Your task to perform on an android device: open app "Adobe Express: Graphic Design" (install if not already installed) and go to login screen Image 0: 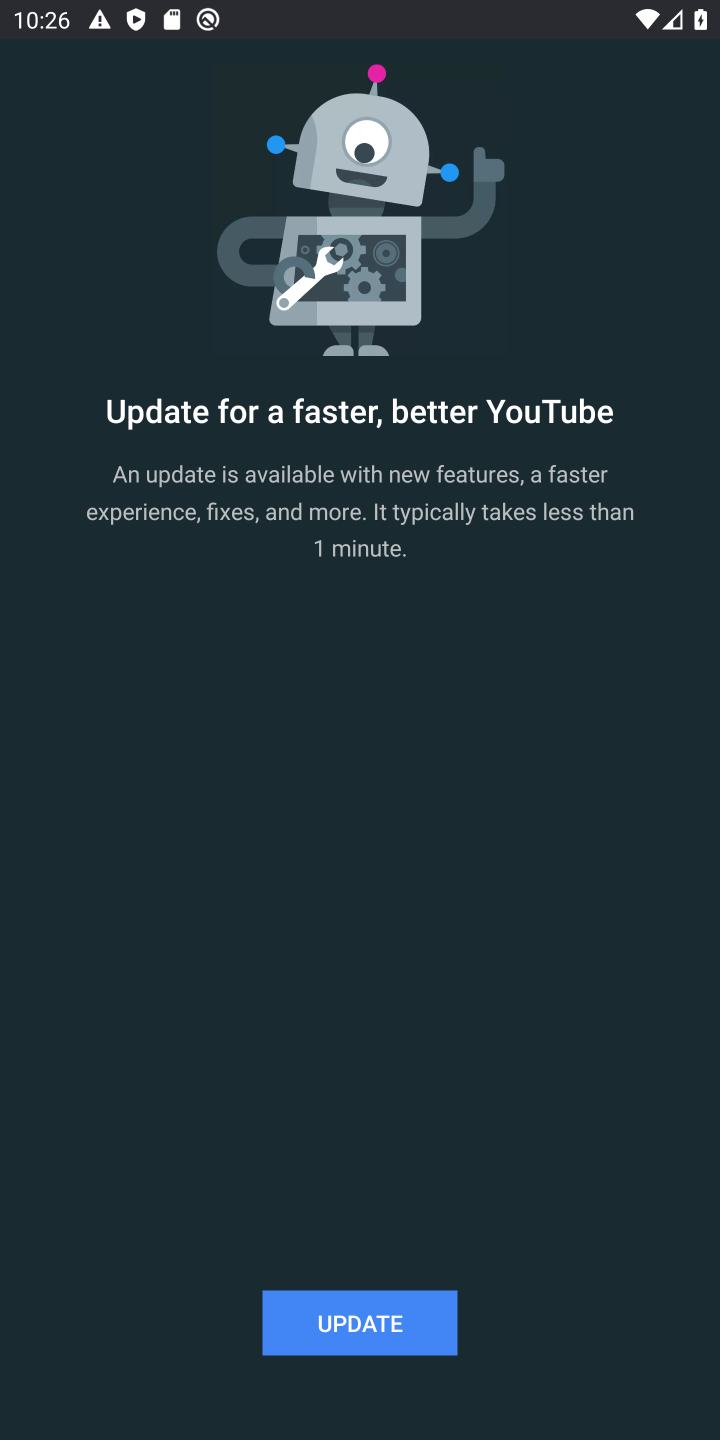
Step 0: press home button
Your task to perform on an android device: open app "Adobe Express: Graphic Design" (install if not already installed) and go to login screen Image 1: 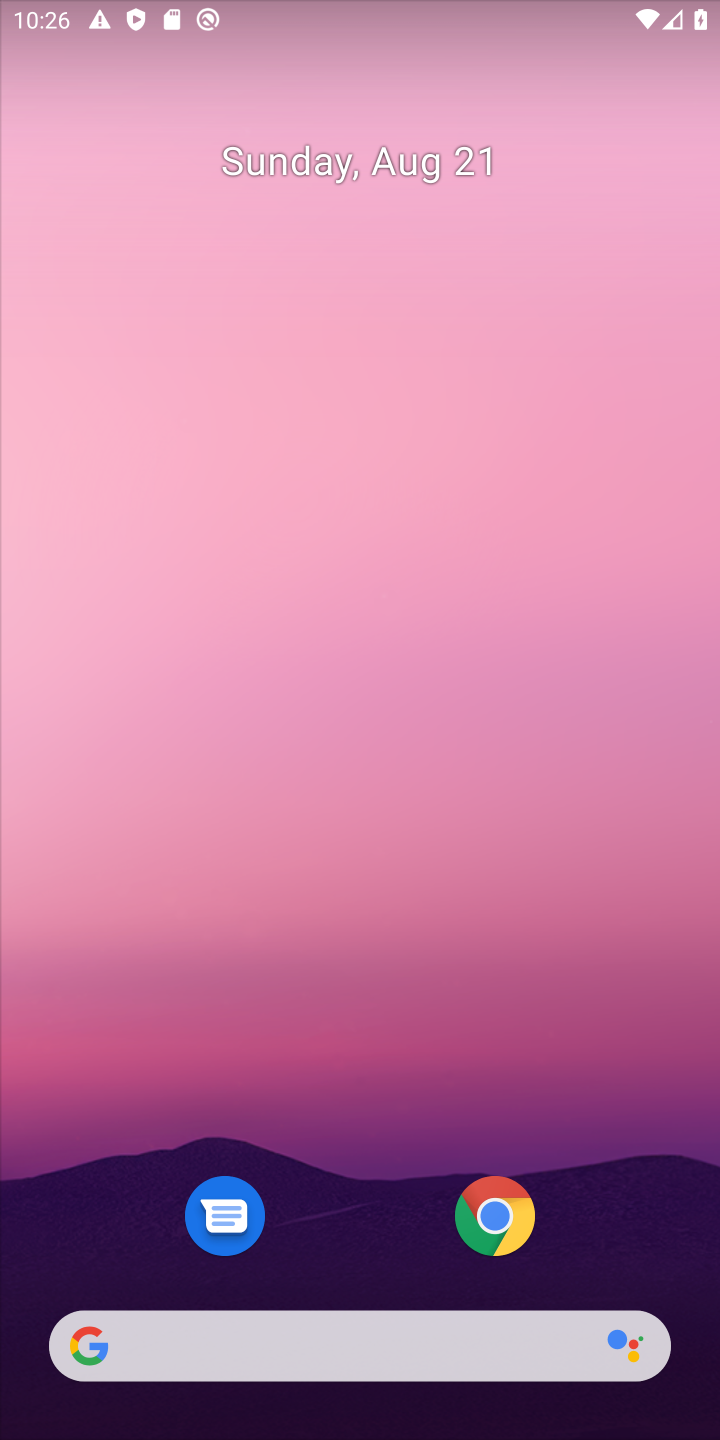
Step 1: drag from (406, 1151) to (705, 449)
Your task to perform on an android device: open app "Adobe Express: Graphic Design" (install if not already installed) and go to login screen Image 2: 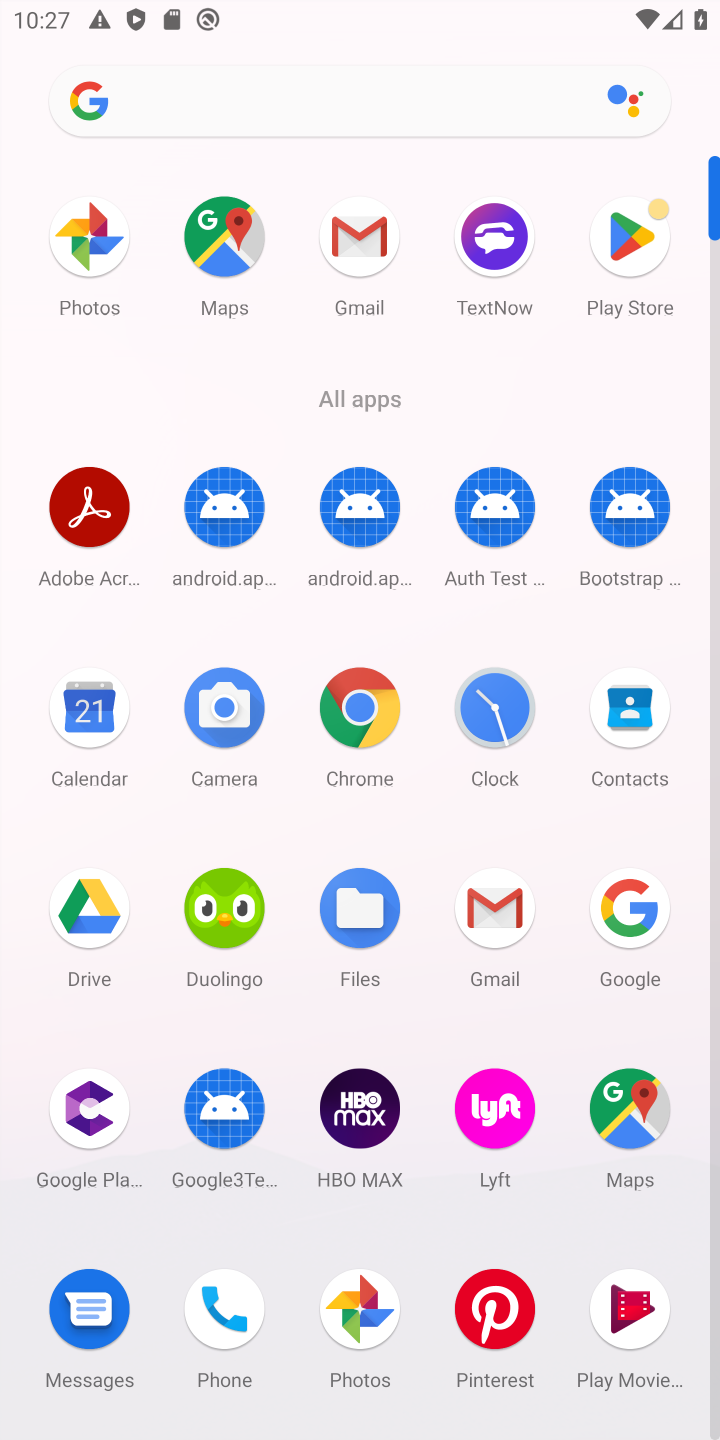
Step 2: click (614, 240)
Your task to perform on an android device: open app "Adobe Express: Graphic Design" (install if not already installed) and go to login screen Image 3: 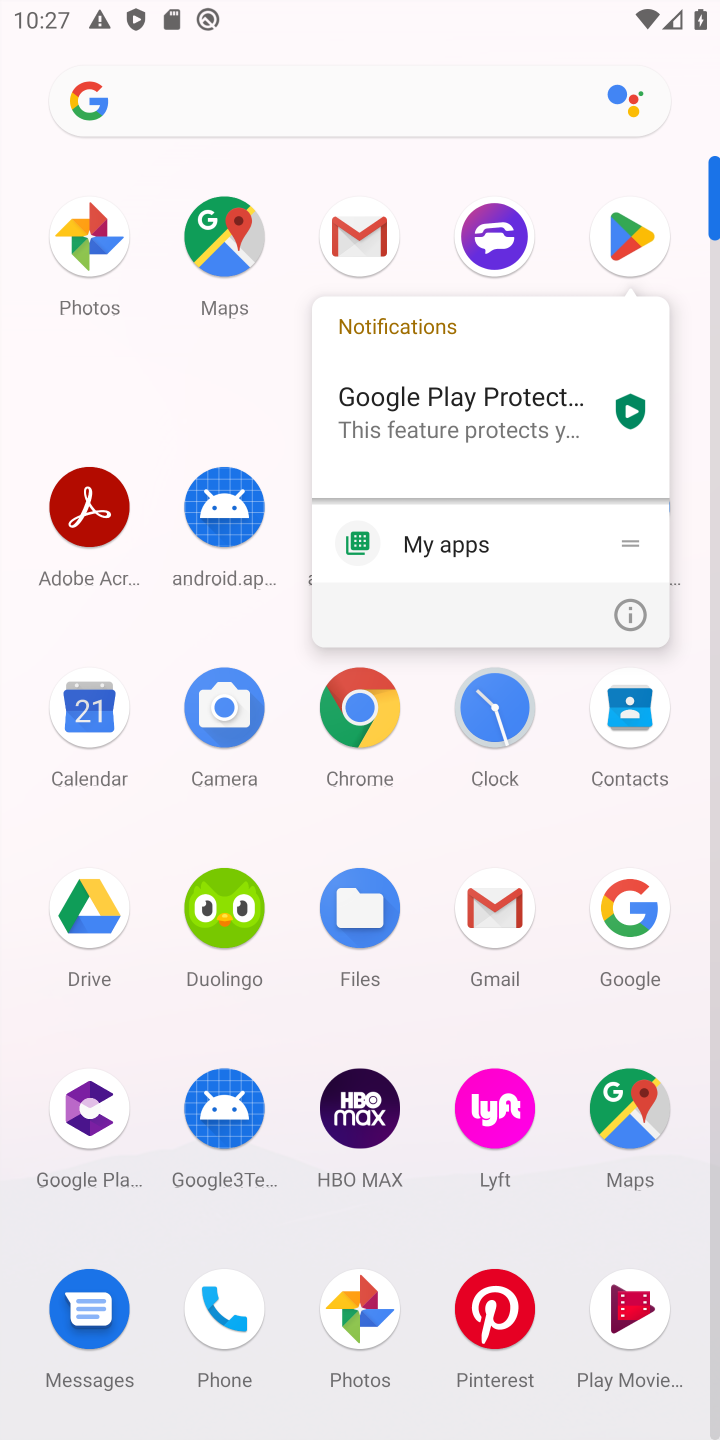
Step 3: click (614, 240)
Your task to perform on an android device: open app "Adobe Express: Graphic Design" (install if not already installed) and go to login screen Image 4: 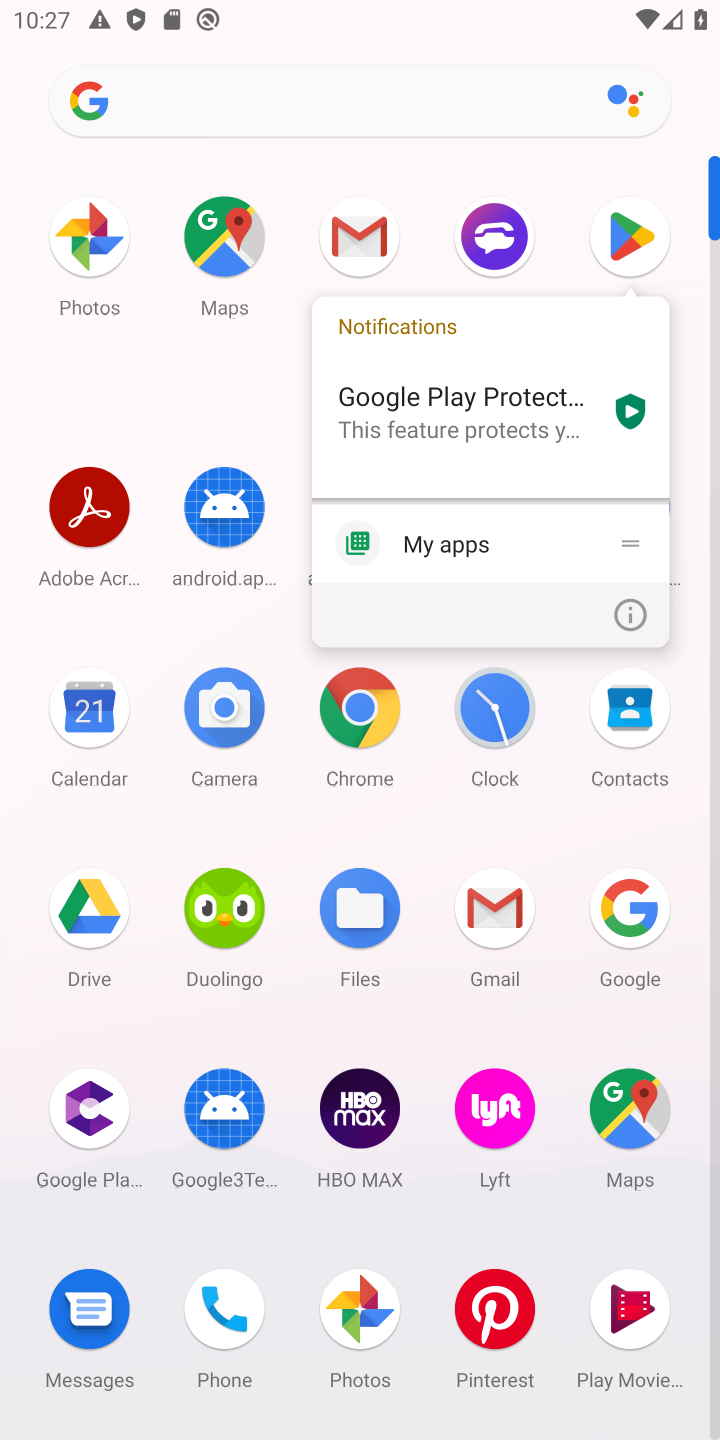
Step 4: click (624, 258)
Your task to perform on an android device: open app "Adobe Express: Graphic Design" (install if not already installed) and go to login screen Image 5: 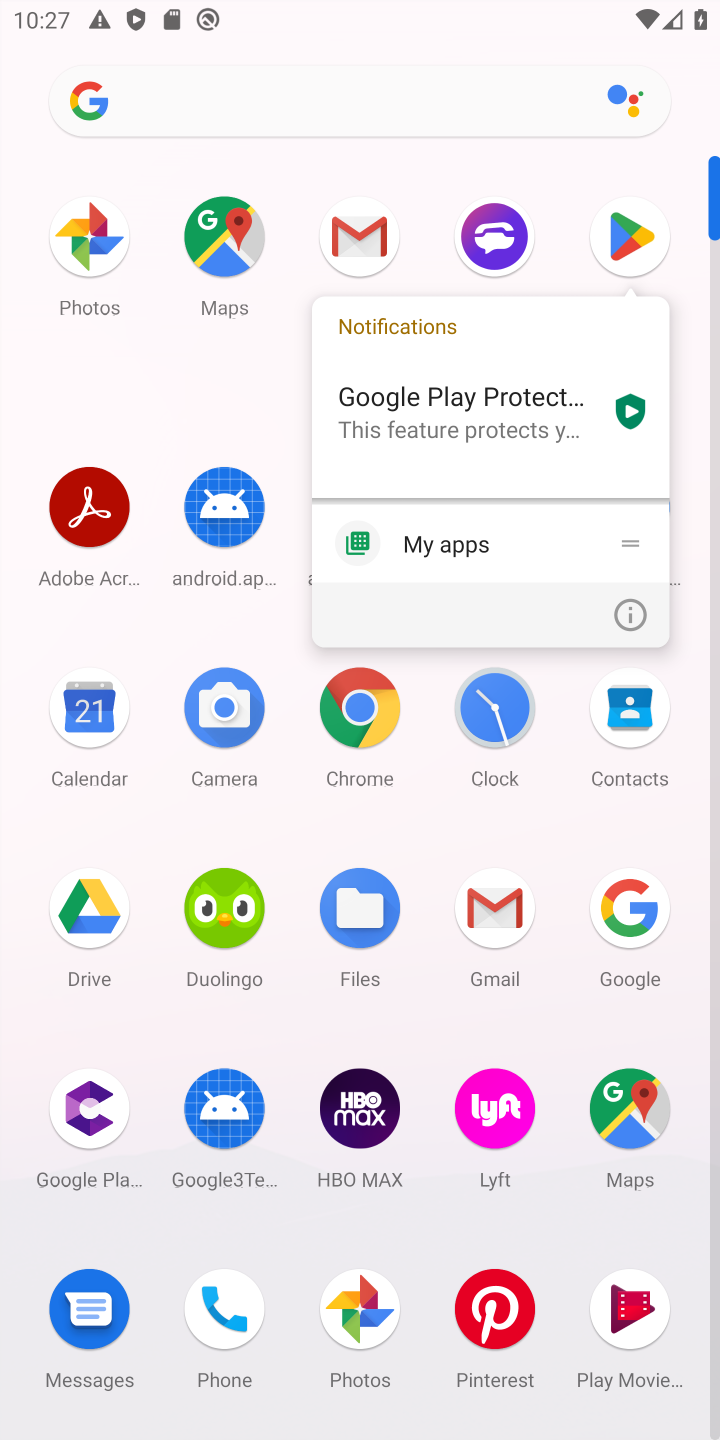
Step 5: click (625, 258)
Your task to perform on an android device: open app "Adobe Express: Graphic Design" (install if not already installed) and go to login screen Image 6: 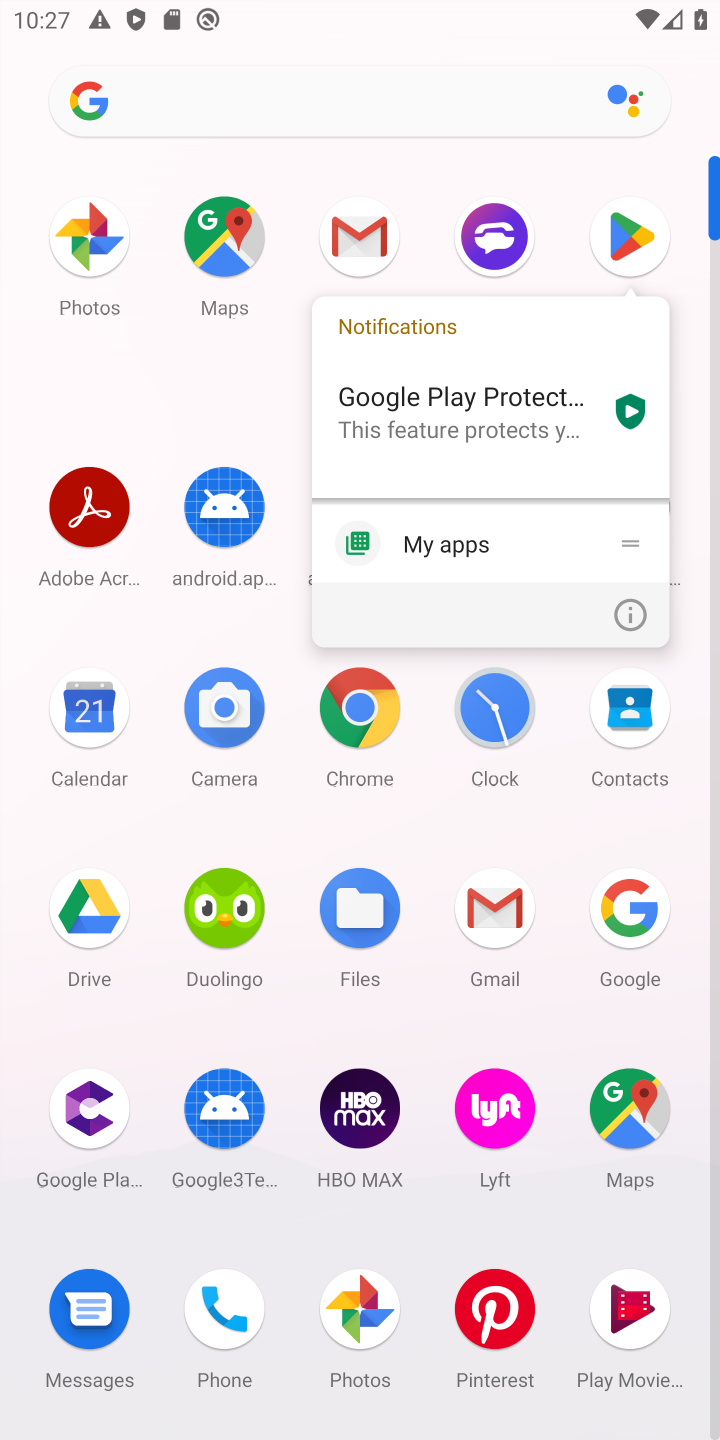
Step 6: click (617, 247)
Your task to perform on an android device: open app "Adobe Express: Graphic Design" (install if not already installed) and go to login screen Image 7: 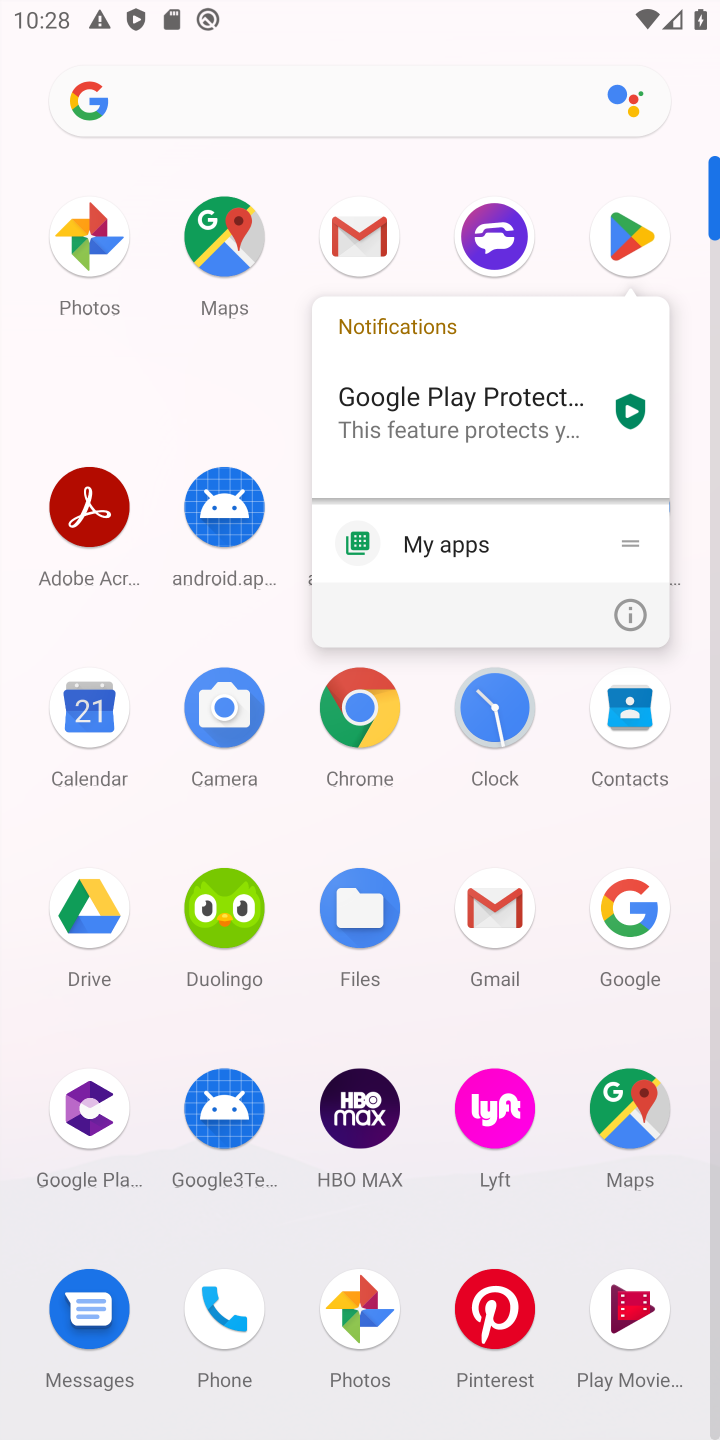
Step 7: click (615, 251)
Your task to perform on an android device: open app "Adobe Express: Graphic Design" (install if not already installed) and go to login screen Image 8: 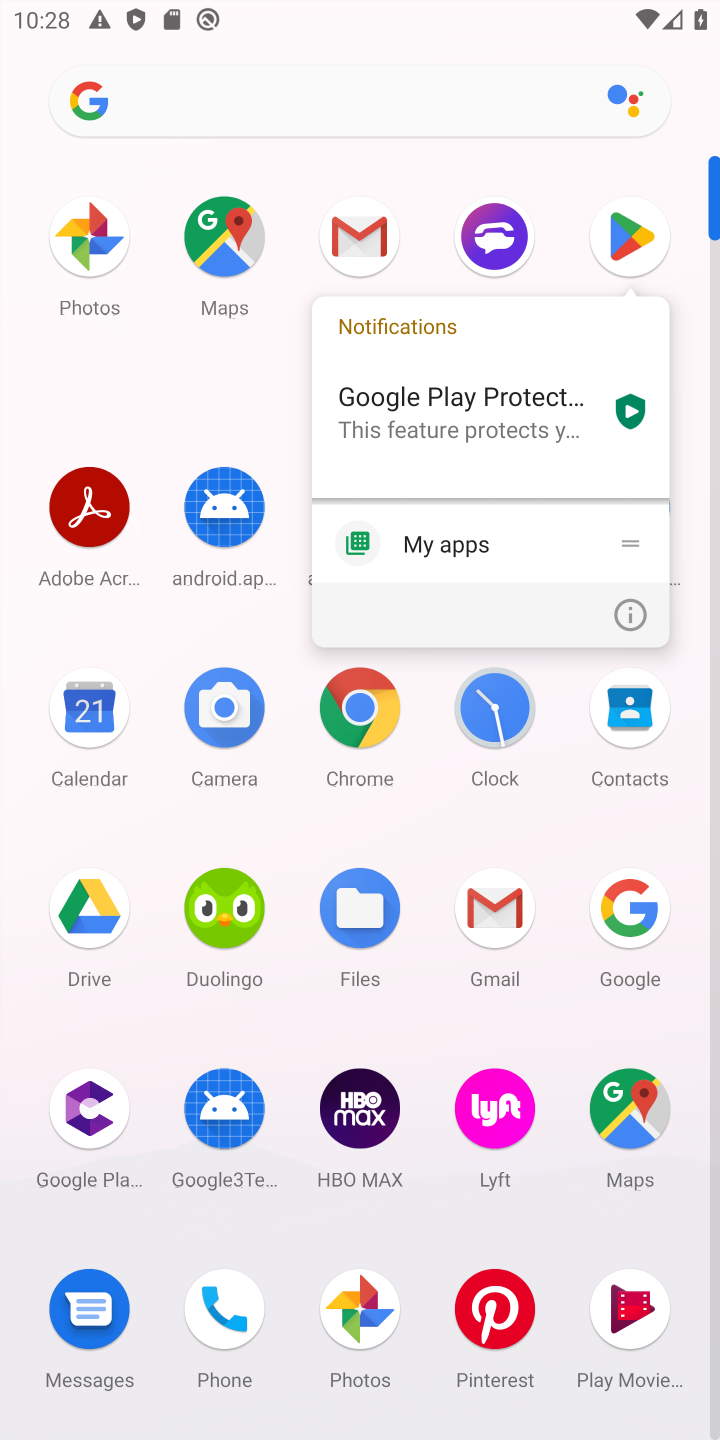
Step 8: click (617, 249)
Your task to perform on an android device: open app "Adobe Express: Graphic Design" (install if not already installed) and go to login screen Image 9: 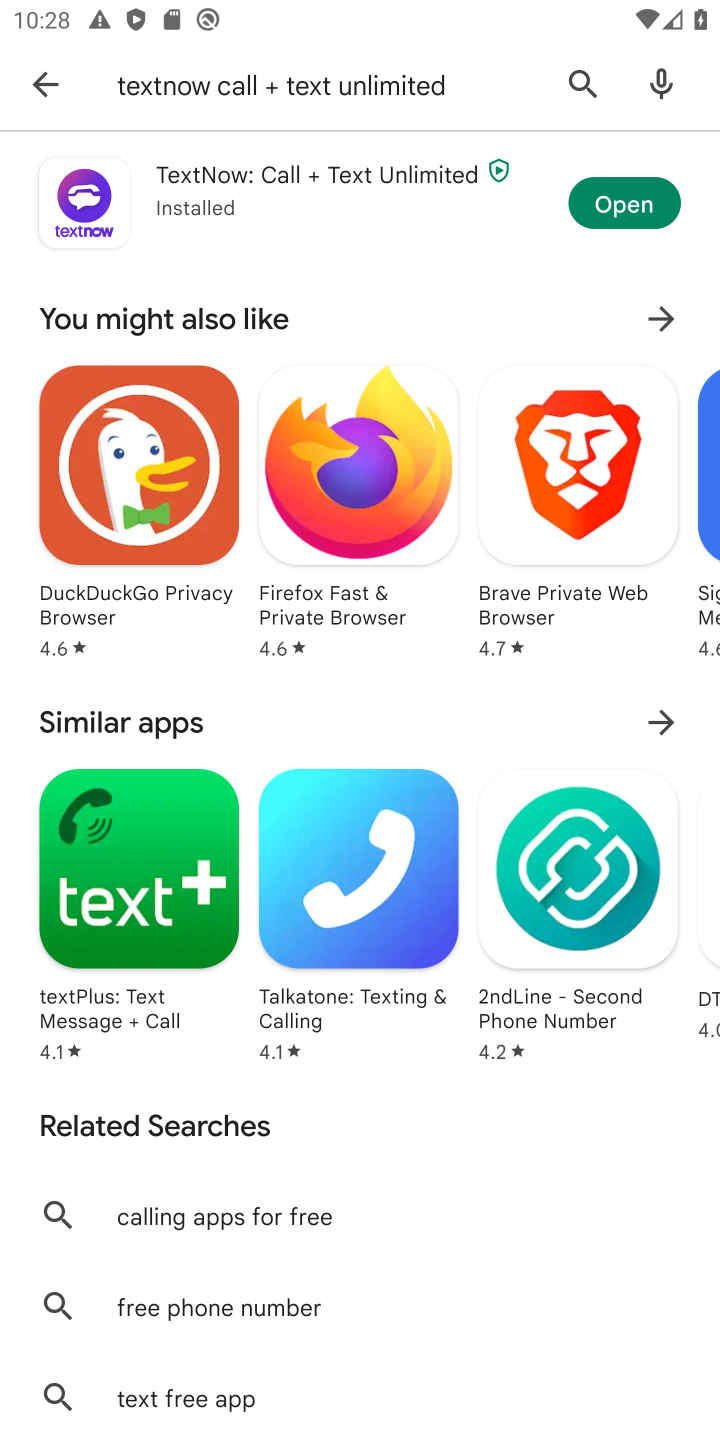
Step 9: press back button
Your task to perform on an android device: open app "Adobe Express: Graphic Design" (install if not already installed) and go to login screen Image 10: 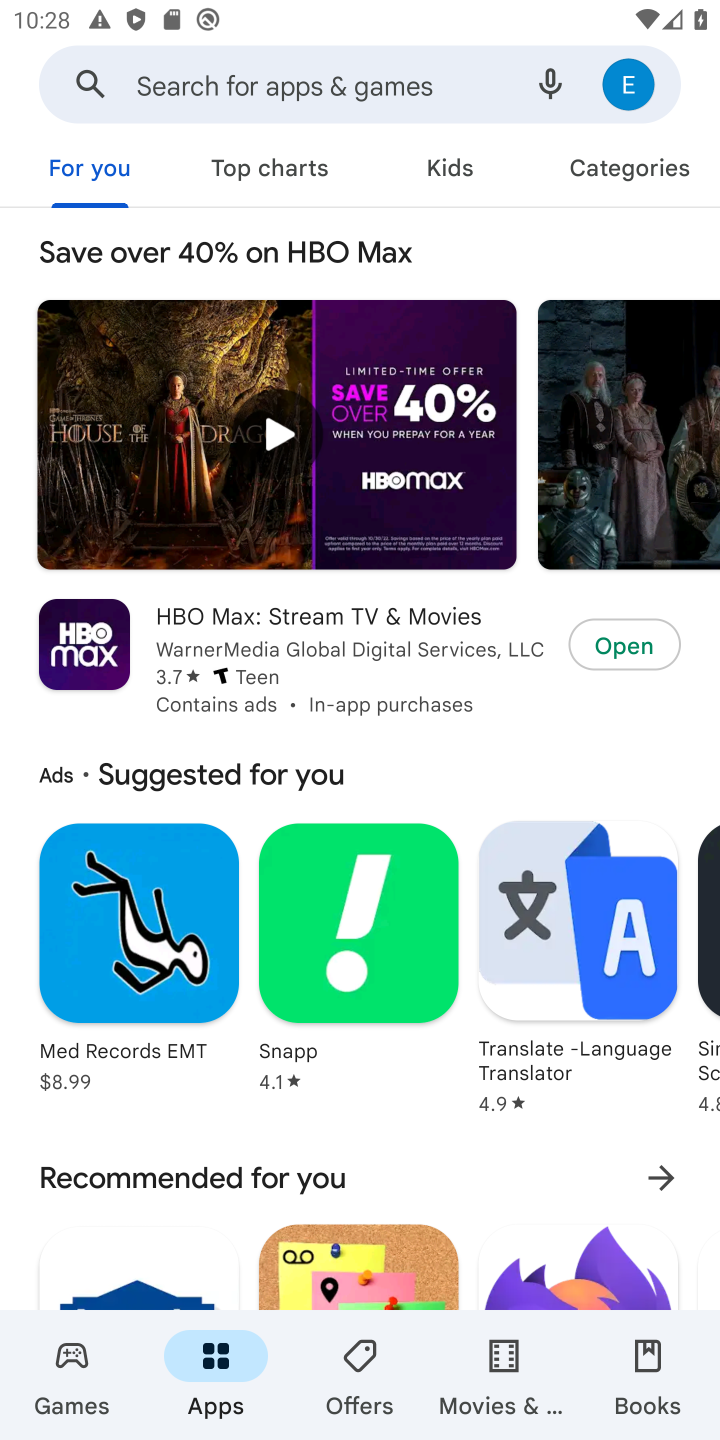
Step 10: click (220, 89)
Your task to perform on an android device: open app "Adobe Express: Graphic Design" (install if not already installed) and go to login screen Image 11: 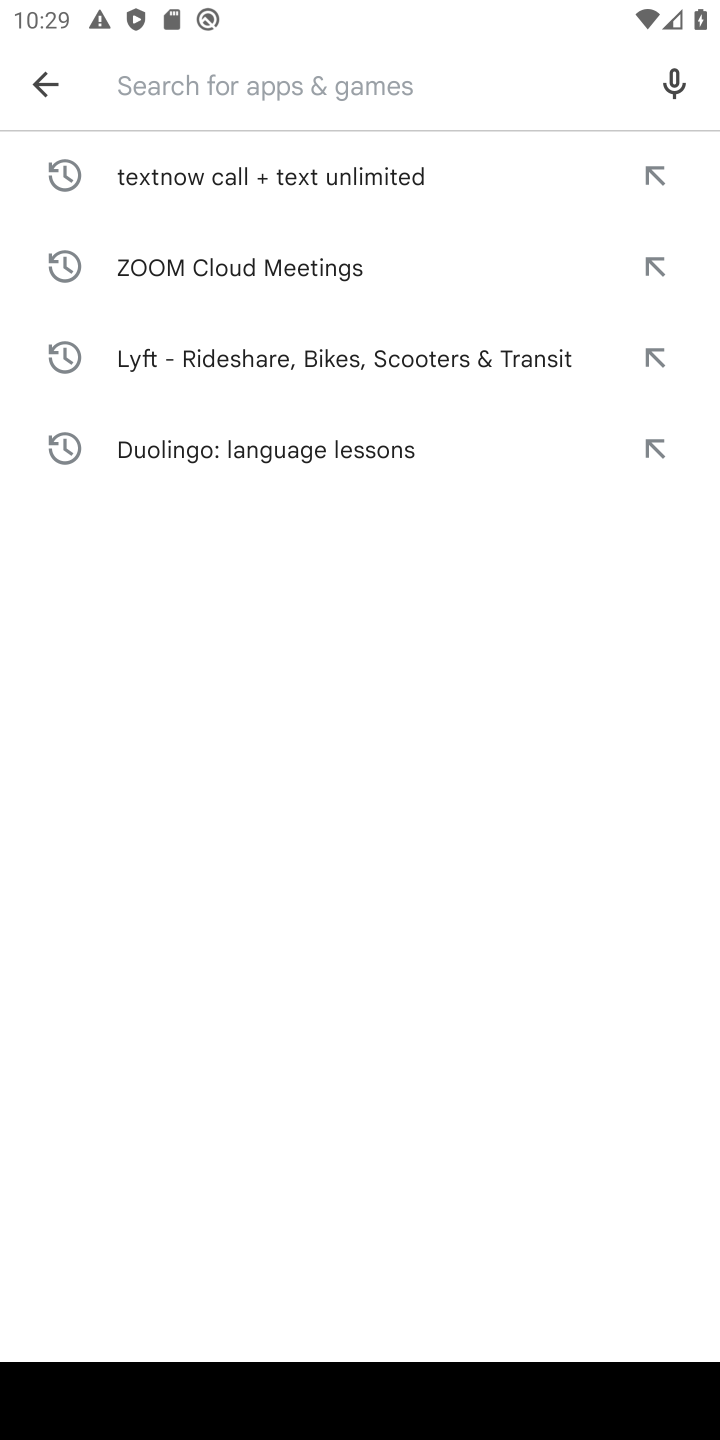
Step 11: type "Adobe Express: Graphic Design"
Your task to perform on an android device: open app "Adobe Express: Graphic Design" (install if not already installed) and go to login screen Image 12: 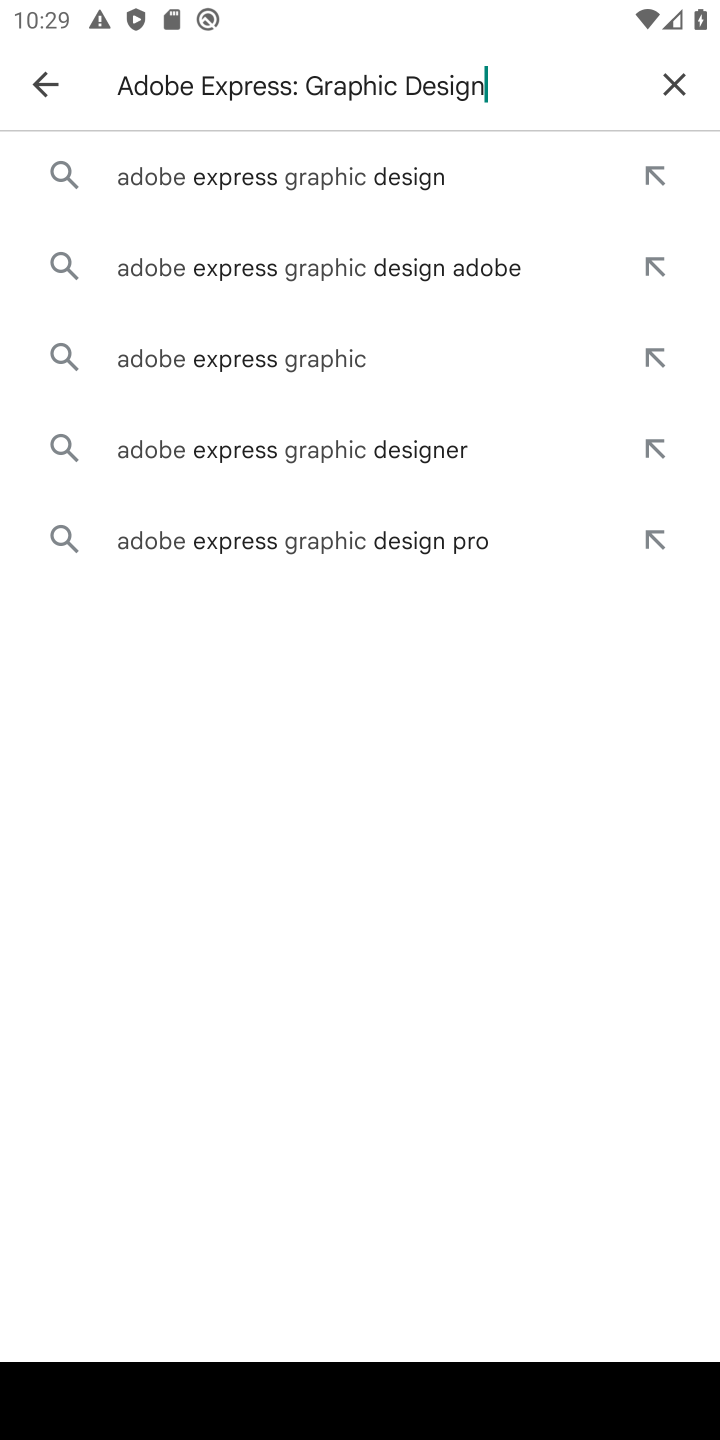
Step 12: press enter
Your task to perform on an android device: open app "Adobe Express: Graphic Design" (install if not already installed) and go to login screen Image 13: 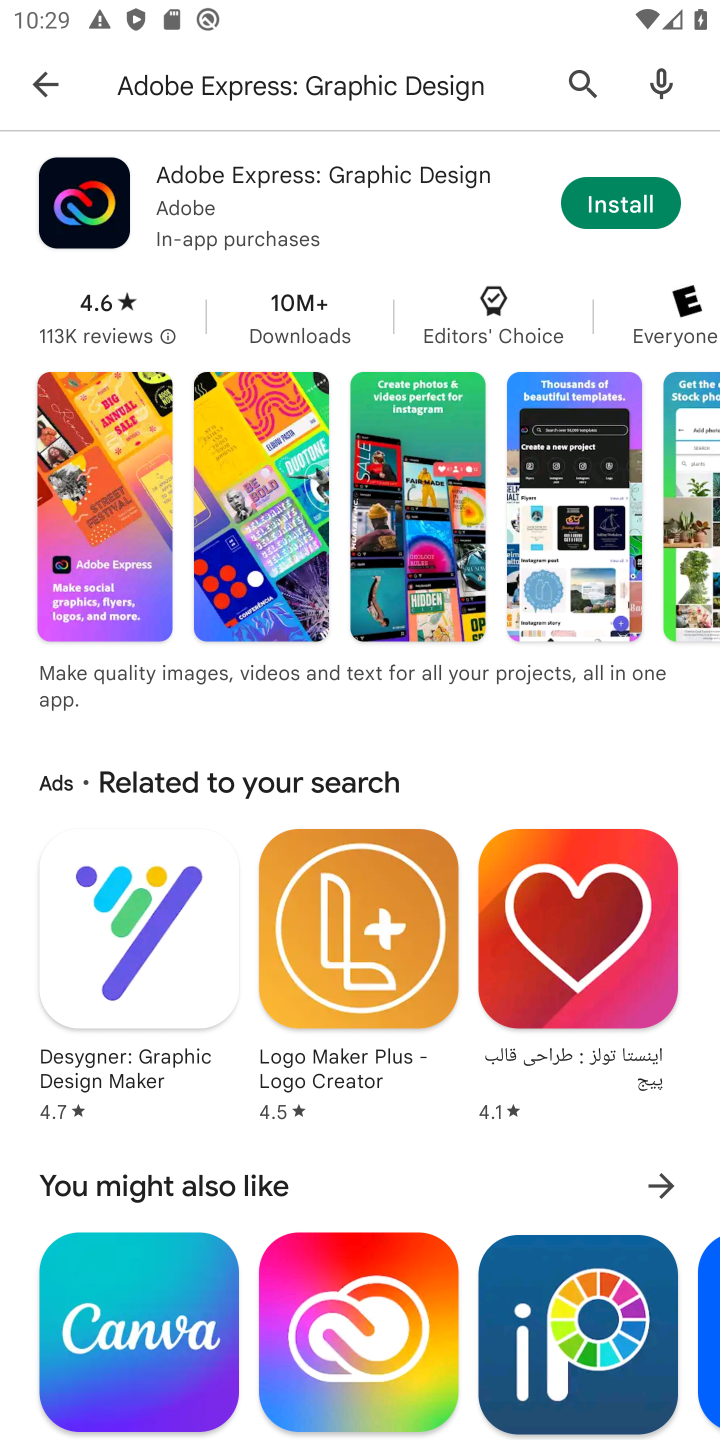
Step 13: click (614, 184)
Your task to perform on an android device: open app "Adobe Express: Graphic Design" (install if not already installed) and go to login screen Image 14: 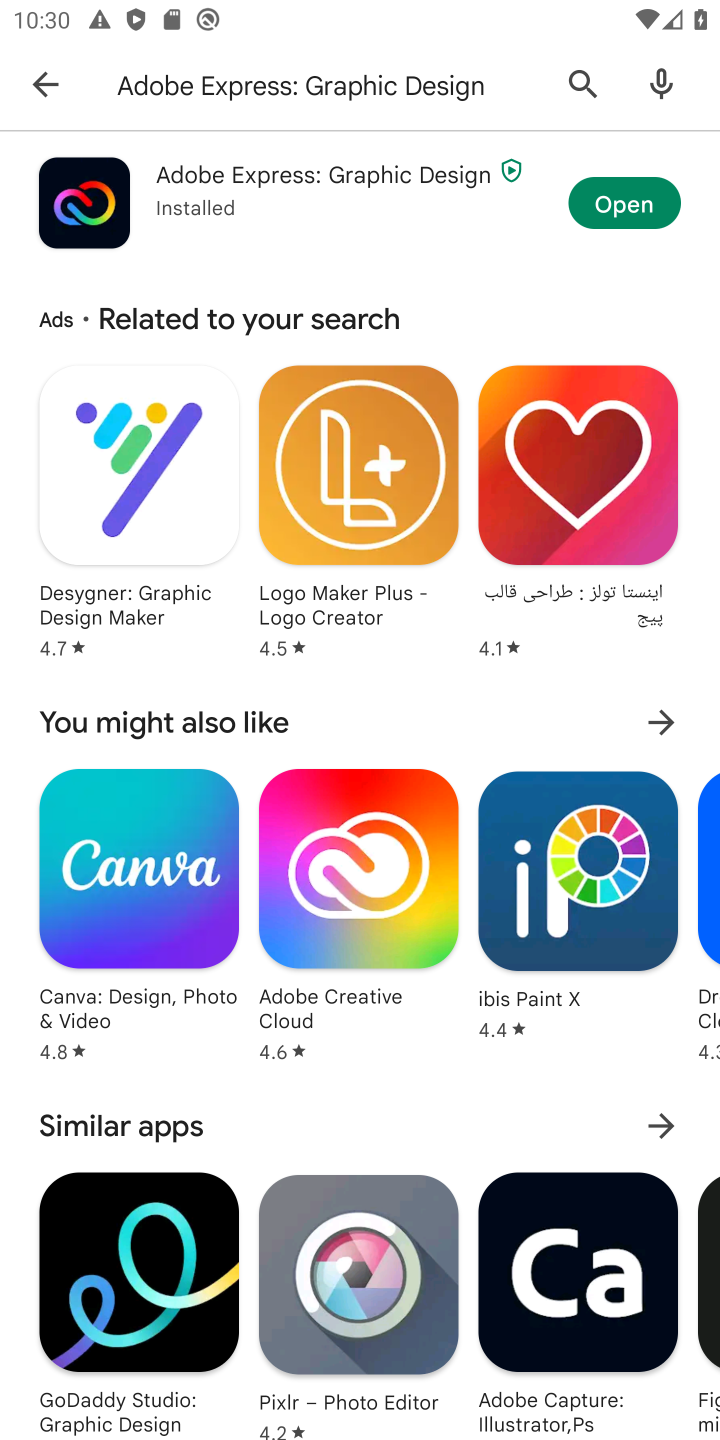
Step 14: click (636, 209)
Your task to perform on an android device: open app "Adobe Express: Graphic Design" (install if not already installed) and go to login screen Image 15: 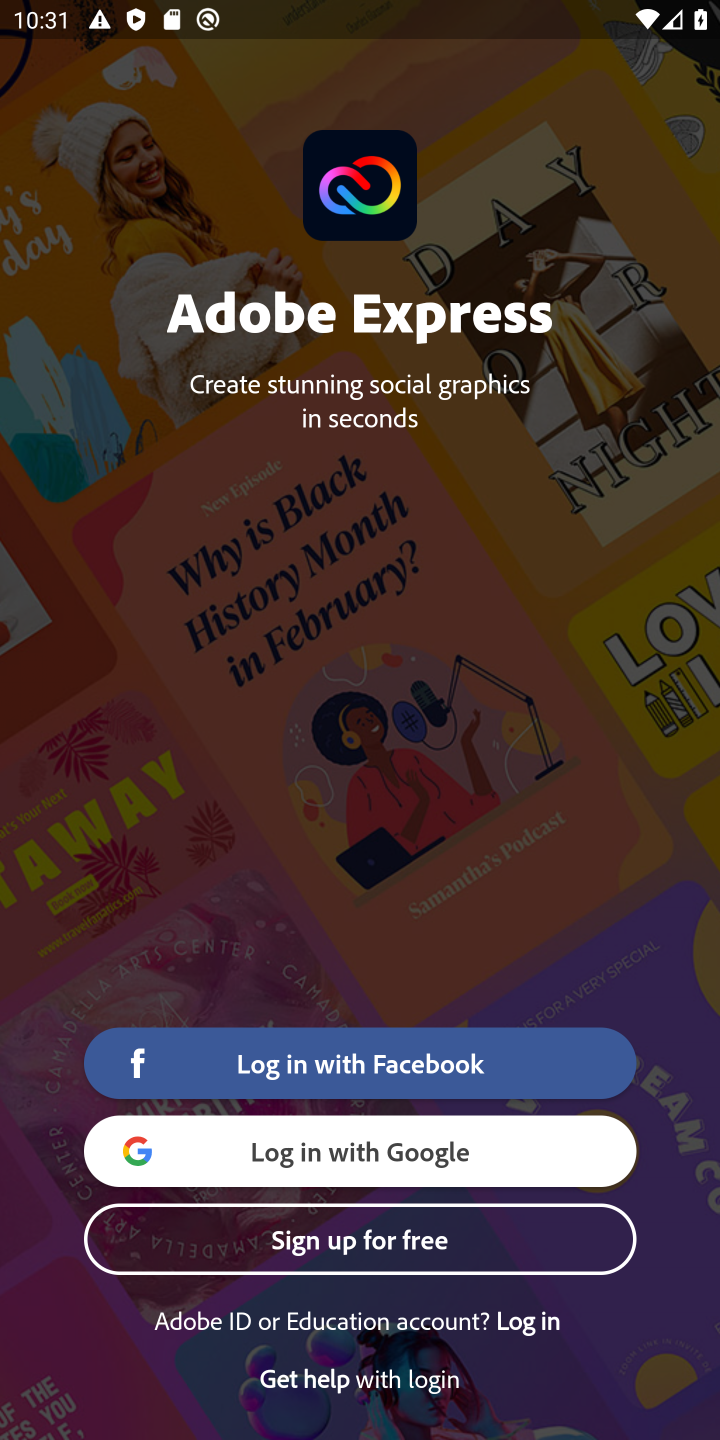
Step 15: click (532, 1306)
Your task to perform on an android device: open app "Adobe Express: Graphic Design" (install if not already installed) and go to login screen Image 16: 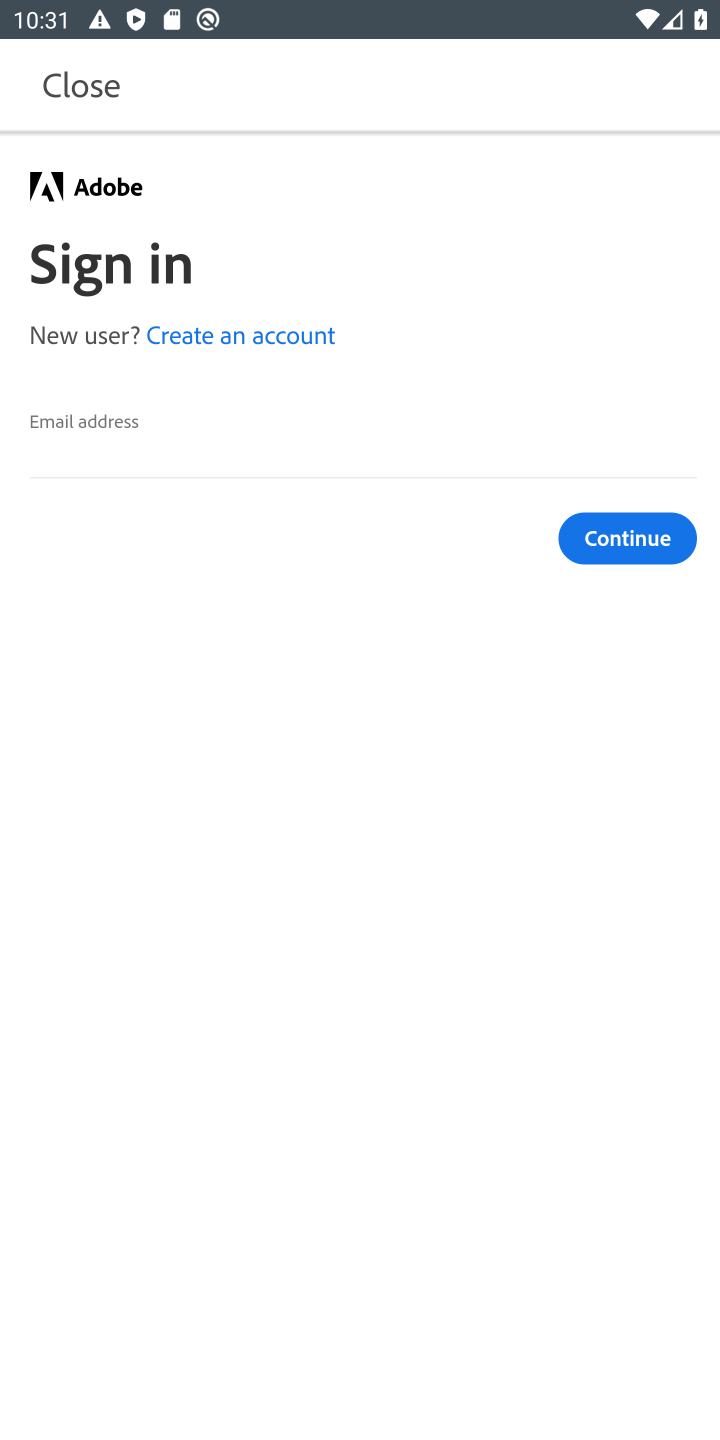
Step 16: task complete